Your task to perform on an android device: open app "Google Chat" Image 0: 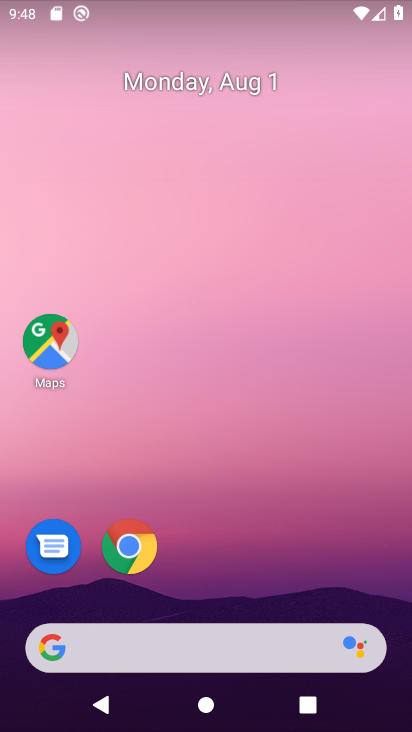
Step 0: press home button
Your task to perform on an android device: open app "Google Chat" Image 1: 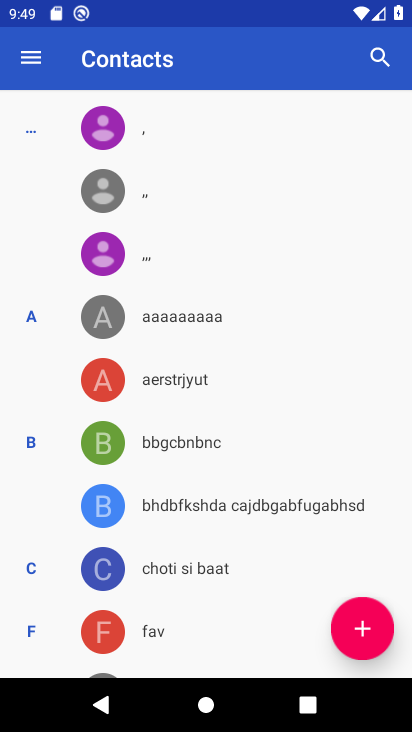
Step 1: click (229, 3)
Your task to perform on an android device: open app "Google Chat" Image 2: 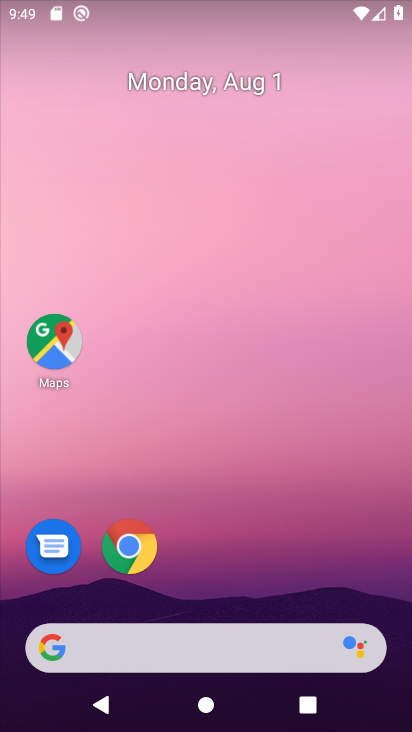
Step 2: drag from (207, 601) to (189, 27)
Your task to perform on an android device: open app "Google Chat" Image 3: 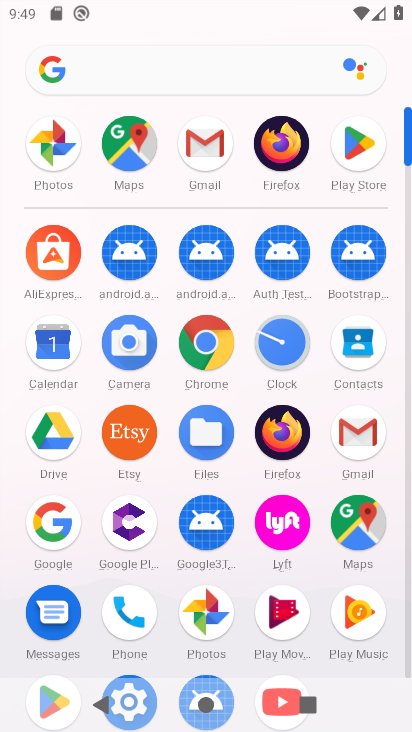
Step 3: click (355, 145)
Your task to perform on an android device: open app "Google Chat" Image 4: 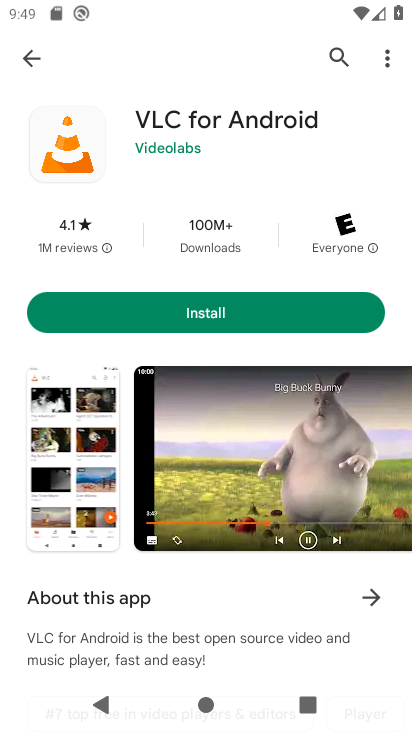
Step 4: click (328, 58)
Your task to perform on an android device: open app "Google Chat" Image 5: 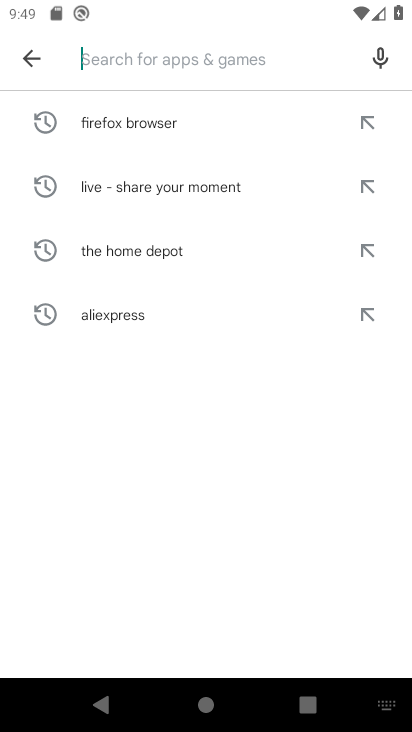
Step 5: type "Google Chat"
Your task to perform on an android device: open app "Google Chat" Image 6: 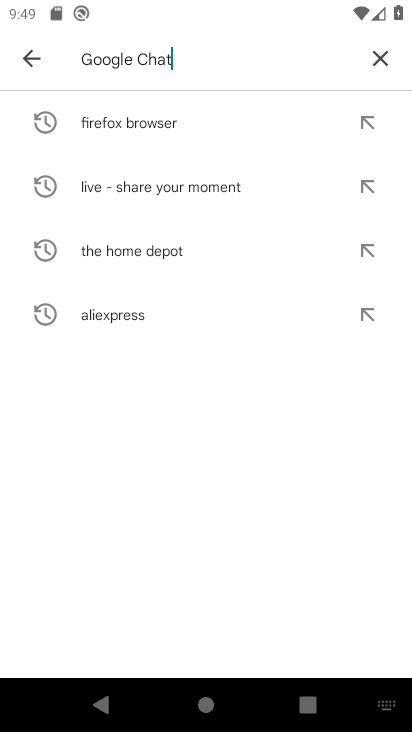
Step 6: type ""
Your task to perform on an android device: open app "Google Chat" Image 7: 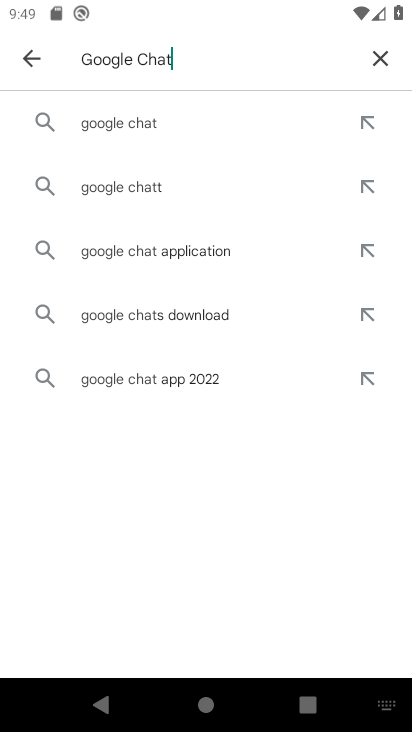
Step 7: click (166, 121)
Your task to perform on an android device: open app "Google Chat" Image 8: 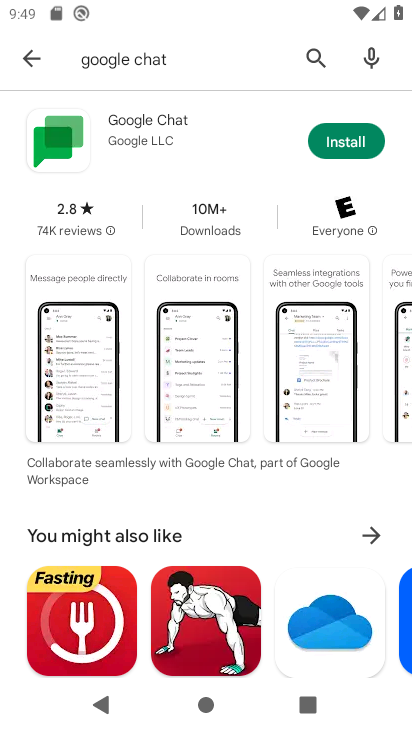
Step 8: task complete